Your task to perform on an android device: Is it going to rain this weekend? Image 0: 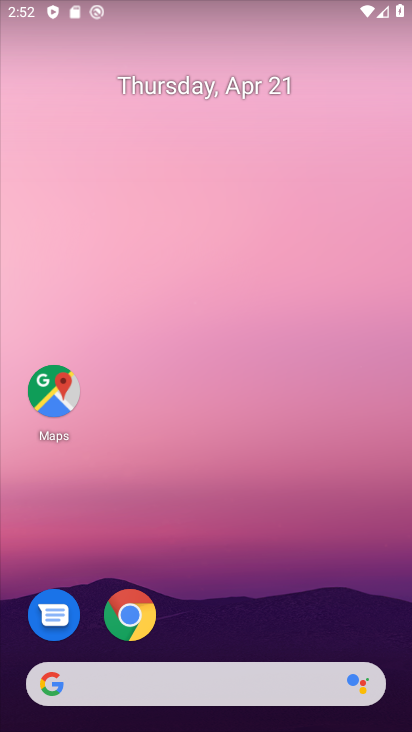
Step 0: drag from (354, 629) to (333, 196)
Your task to perform on an android device: Is it going to rain this weekend? Image 1: 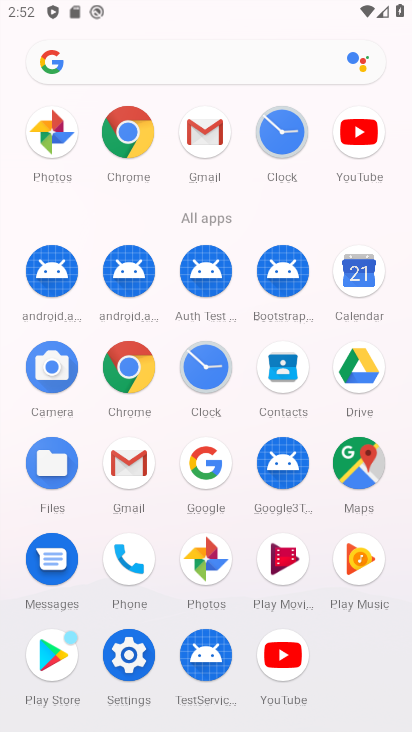
Step 1: click (137, 388)
Your task to perform on an android device: Is it going to rain this weekend? Image 2: 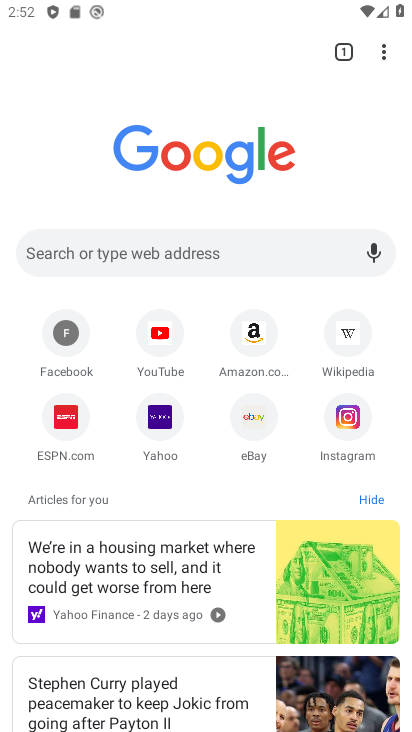
Step 2: click (169, 252)
Your task to perform on an android device: Is it going to rain this weekend? Image 3: 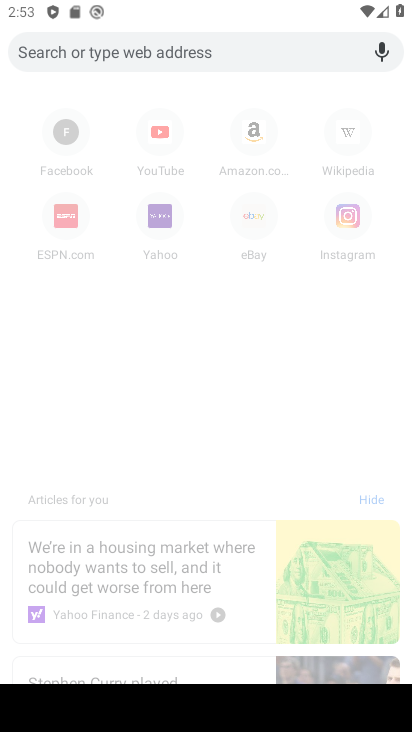
Step 3: type "is it going to rain this weekend"
Your task to perform on an android device: Is it going to rain this weekend? Image 4: 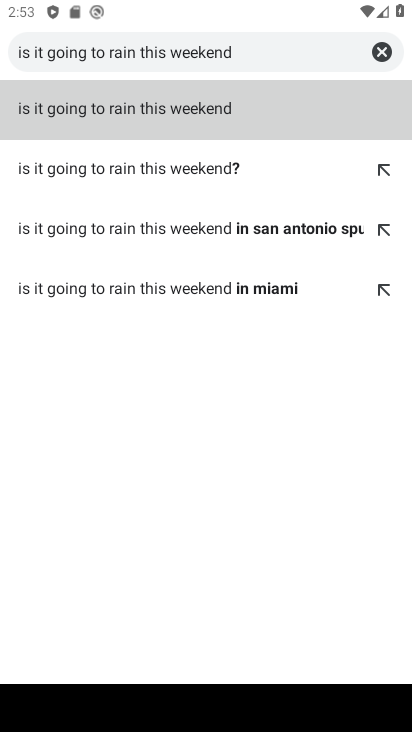
Step 4: click (196, 104)
Your task to perform on an android device: Is it going to rain this weekend? Image 5: 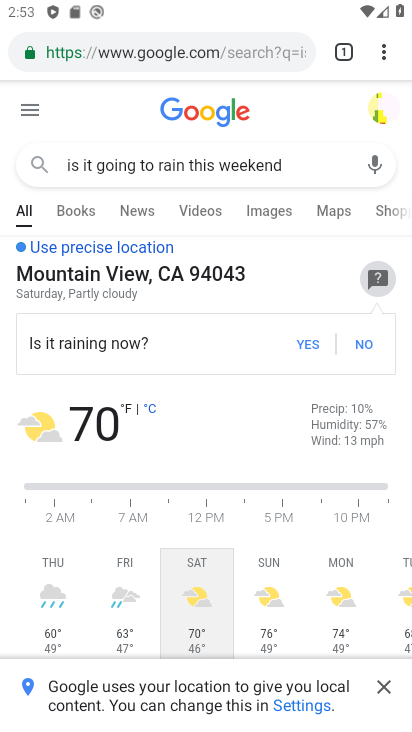
Step 5: task complete